Your task to perform on an android device: Empty the shopping cart on costco. Image 0: 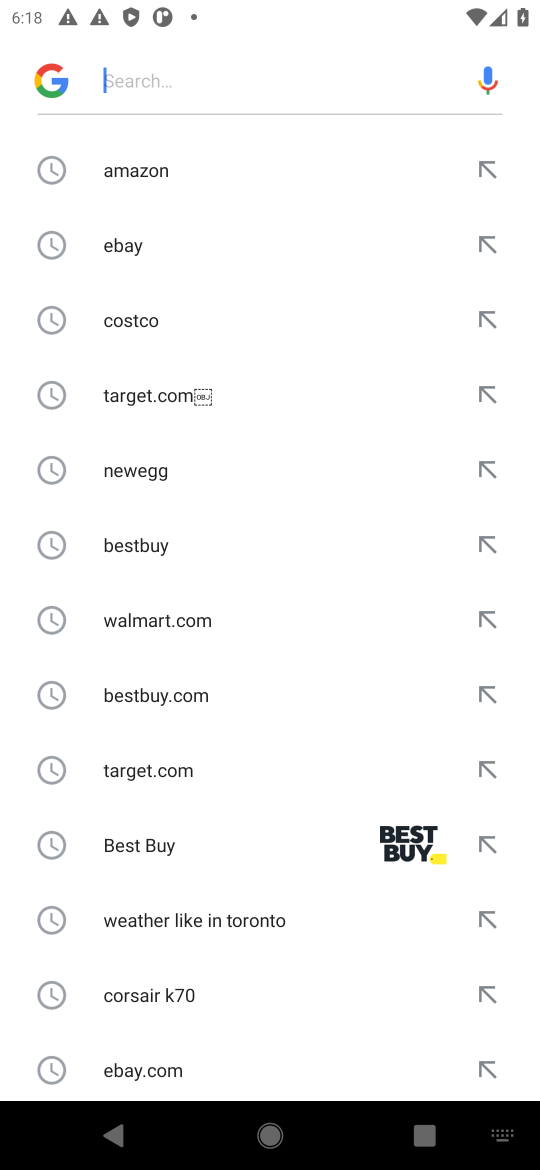
Step 0: press home button
Your task to perform on an android device: Empty the shopping cart on costco. Image 1: 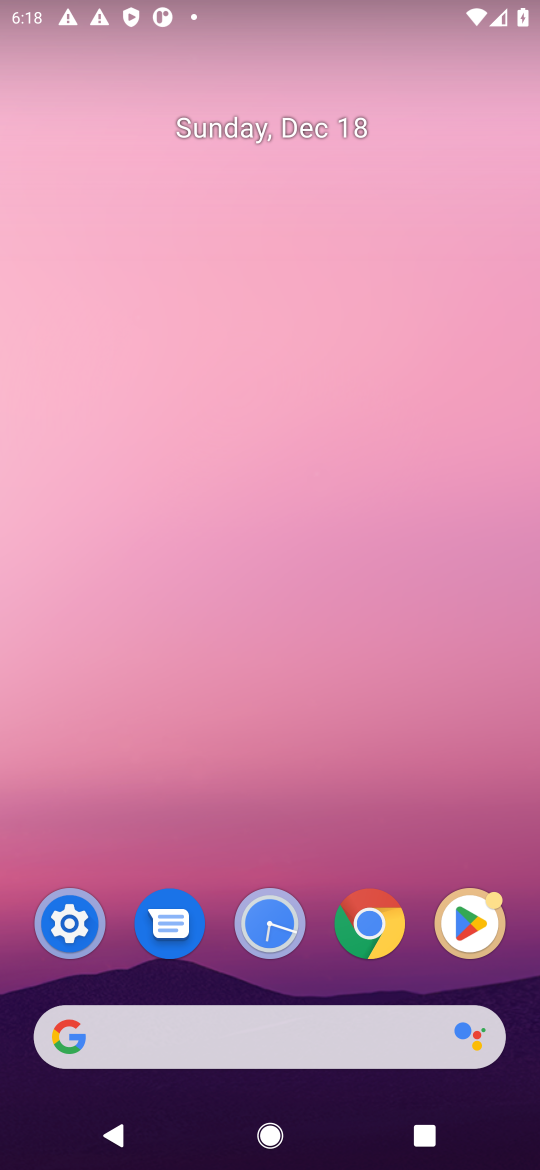
Step 1: click (107, 1033)
Your task to perform on an android device: Empty the shopping cart on costco. Image 2: 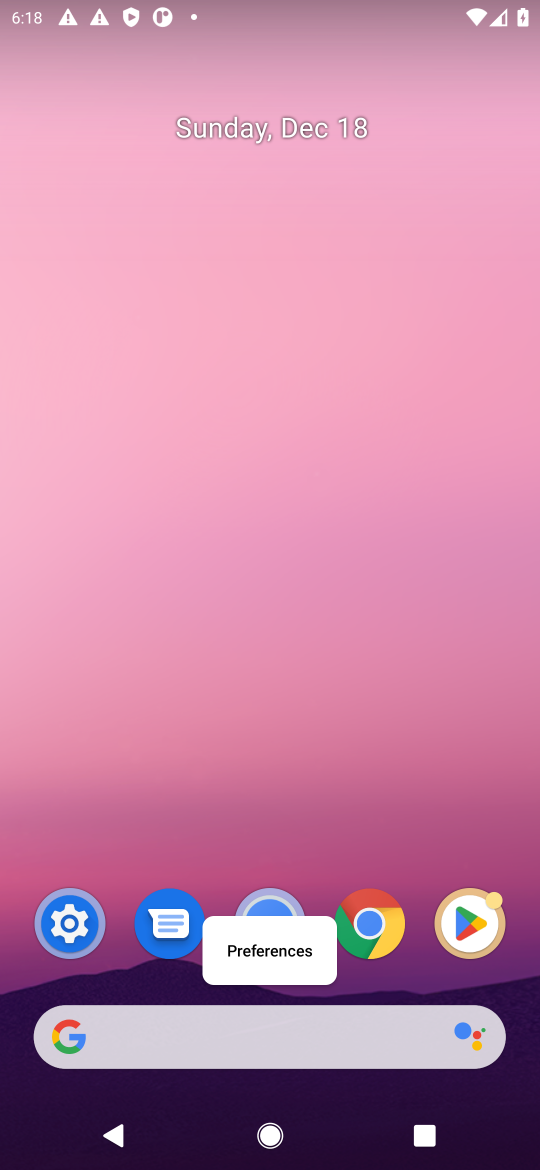
Step 2: click (102, 1048)
Your task to perform on an android device: Empty the shopping cart on costco. Image 3: 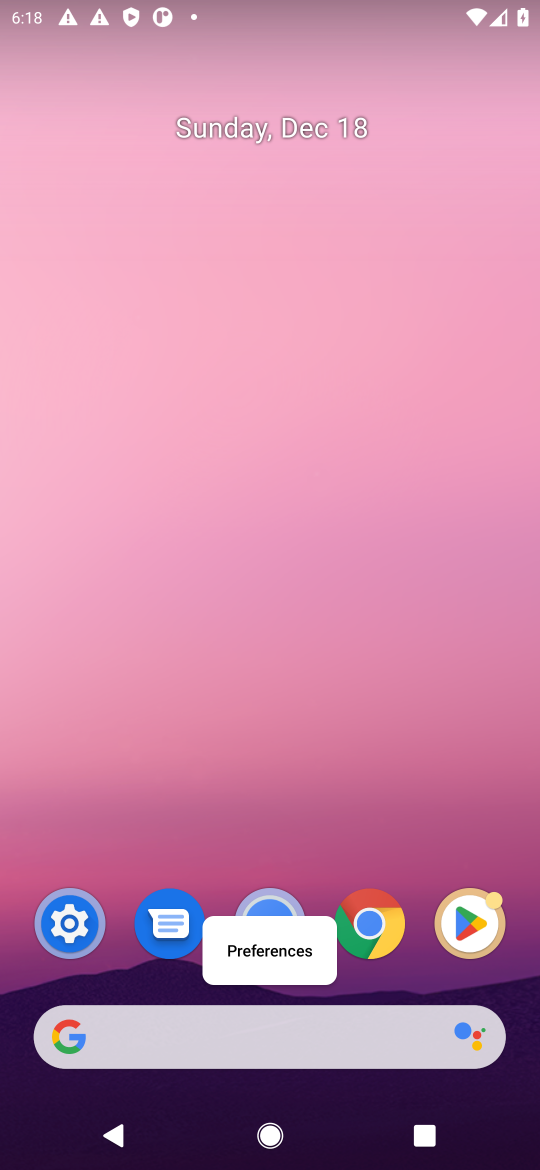
Step 3: click (151, 1040)
Your task to perform on an android device: Empty the shopping cart on costco. Image 4: 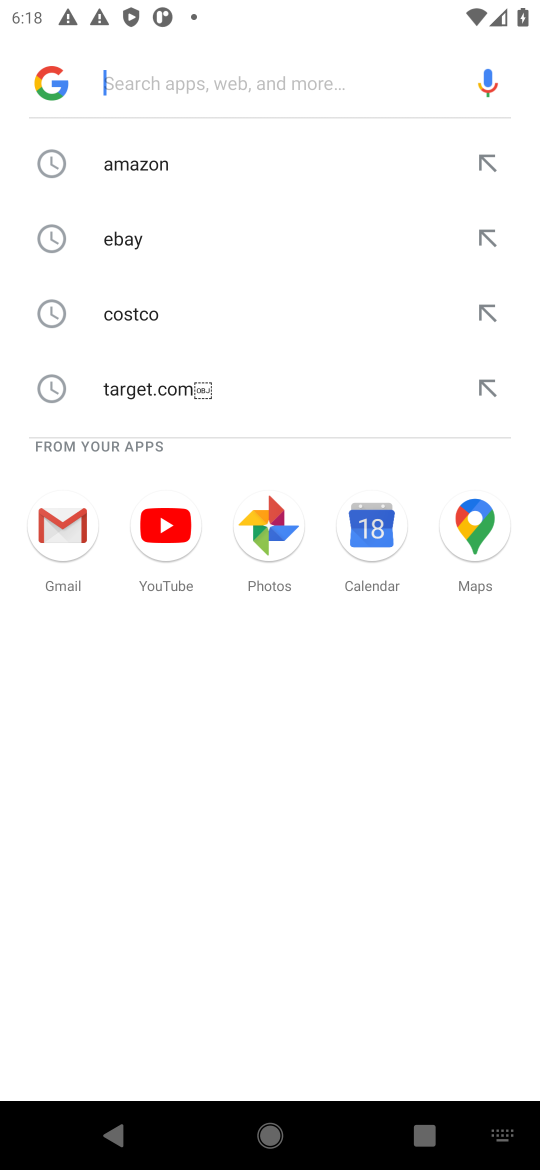
Step 4: type "costco"
Your task to perform on an android device: Empty the shopping cart on costco. Image 5: 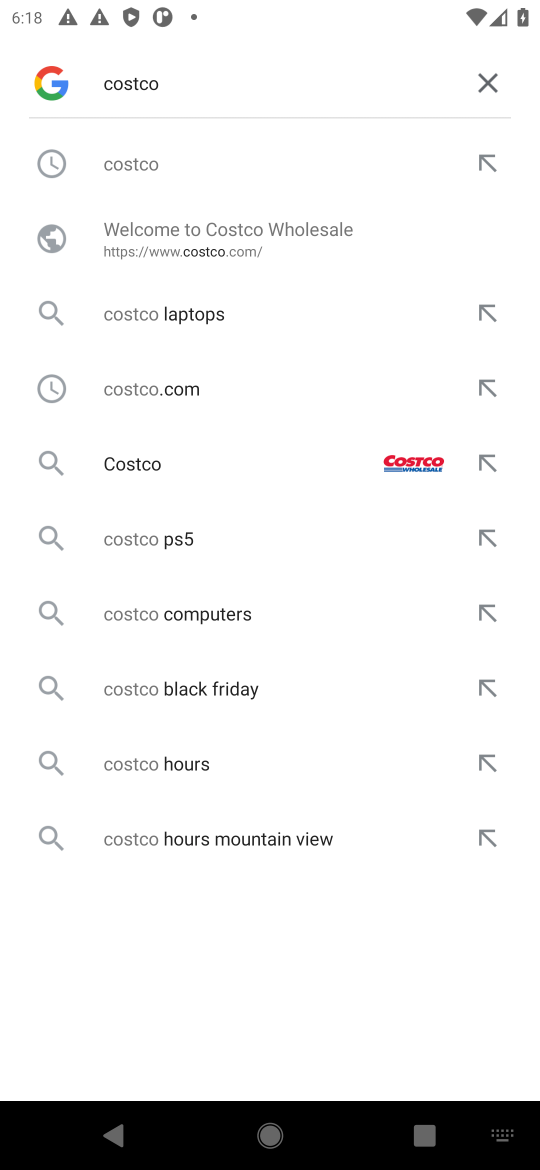
Step 5: press enter
Your task to perform on an android device: Empty the shopping cart on costco. Image 6: 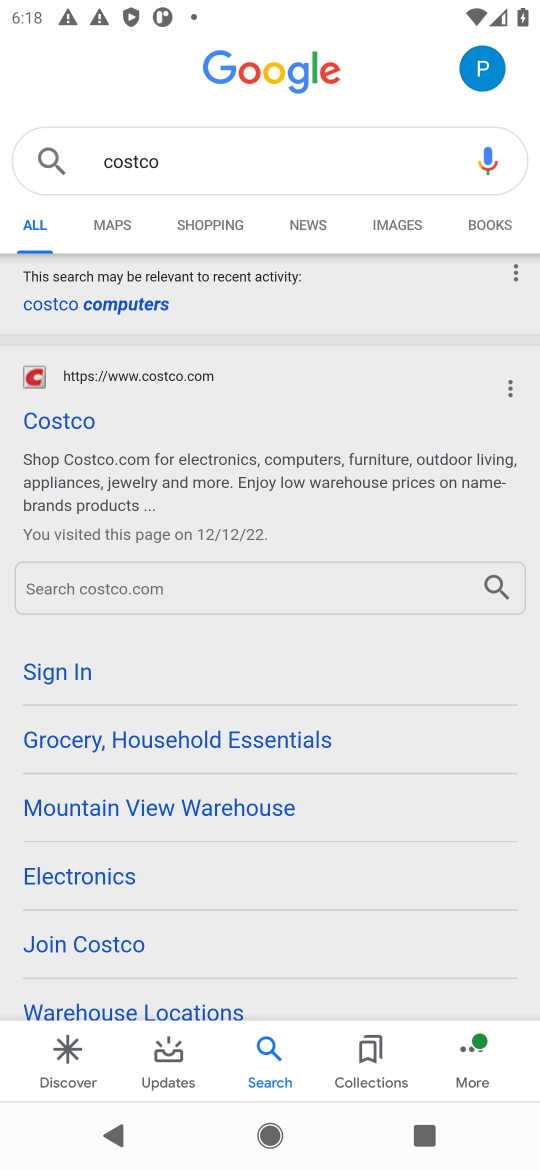
Step 6: click (48, 424)
Your task to perform on an android device: Empty the shopping cart on costco. Image 7: 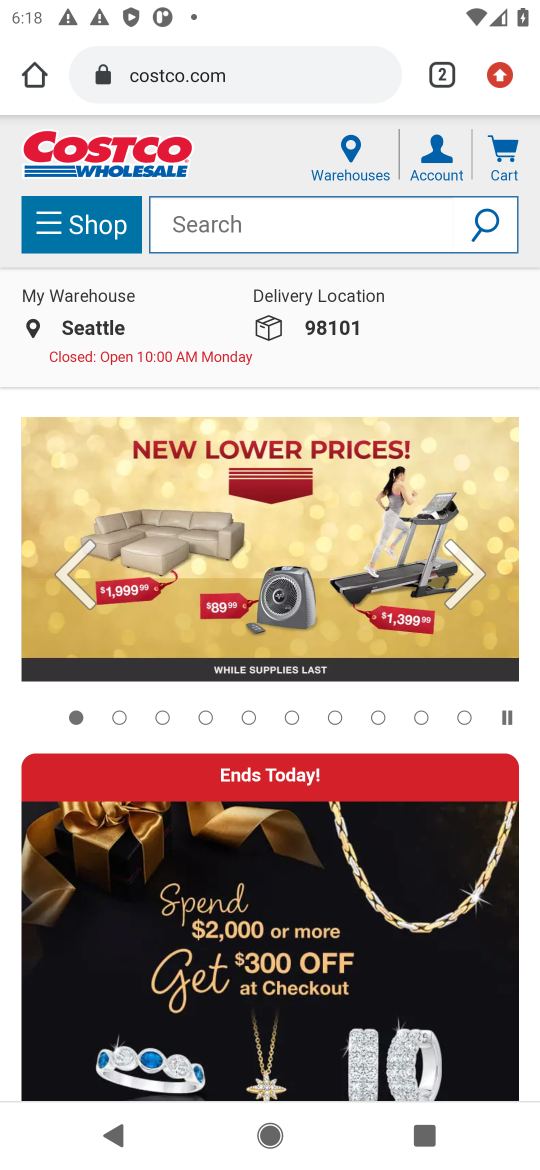
Step 7: click (499, 161)
Your task to perform on an android device: Empty the shopping cart on costco. Image 8: 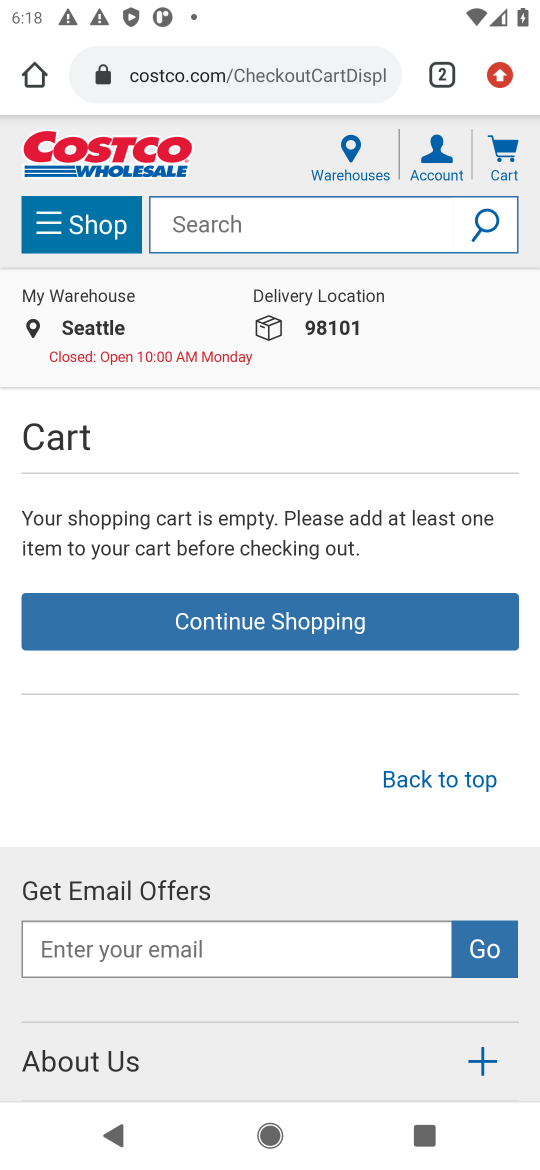
Step 8: task complete